Your task to perform on an android device: Open privacy settings Image 0: 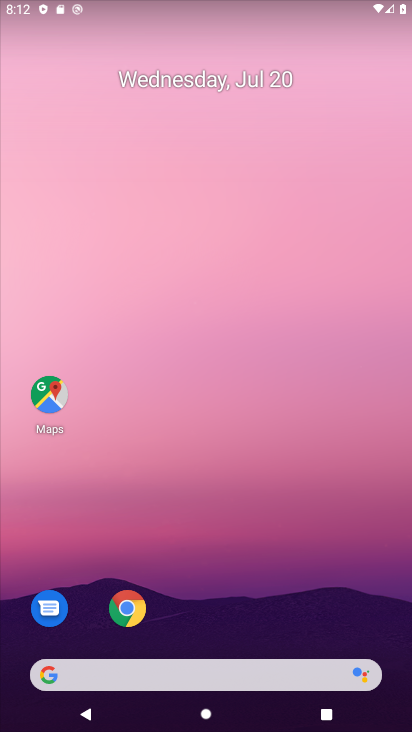
Step 0: drag from (234, 629) to (226, 0)
Your task to perform on an android device: Open privacy settings Image 1: 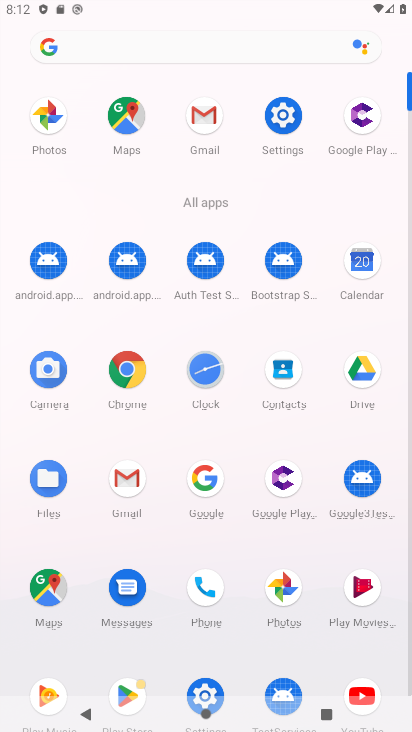
Step 1: click (285, 132)
Your task to perform on an android device: Open privacy settings Image 2: 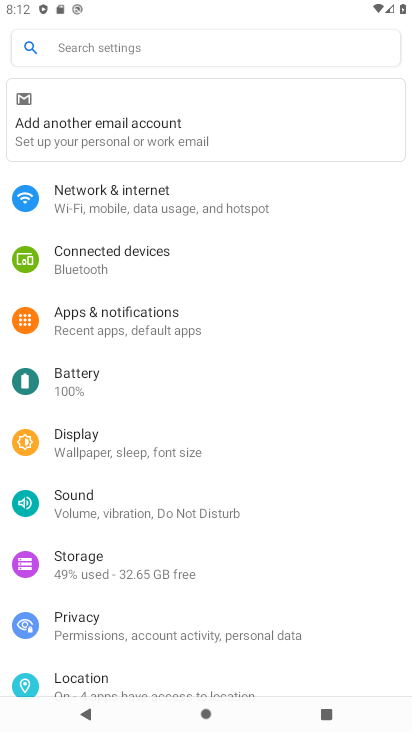
Step 2: click (63, 632)
Your task to perform on an android device: Open privacy settings Image 3: 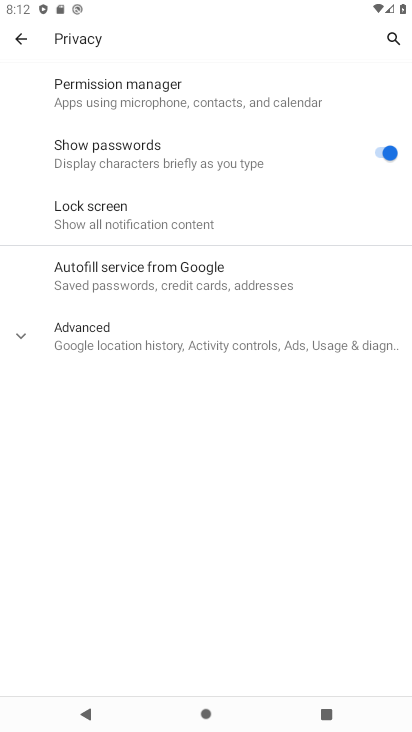
Step 3: task complete